Your task to perform on an android device: Open Google Maps Image 0: 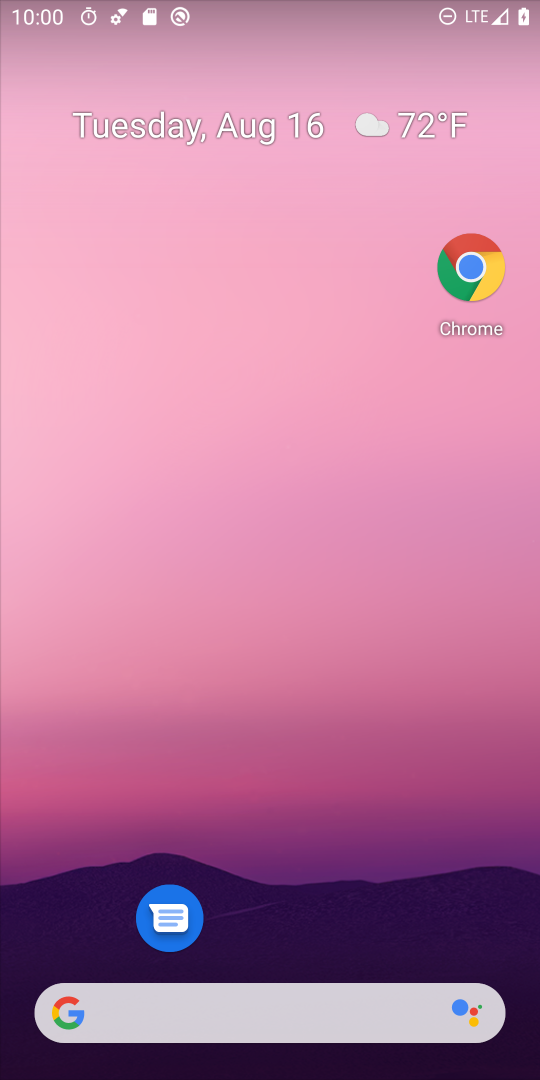
Step 0: drag from (299, 850) to (497, 525)
Your task to perform on an android device: Open Google Maps Image 1: 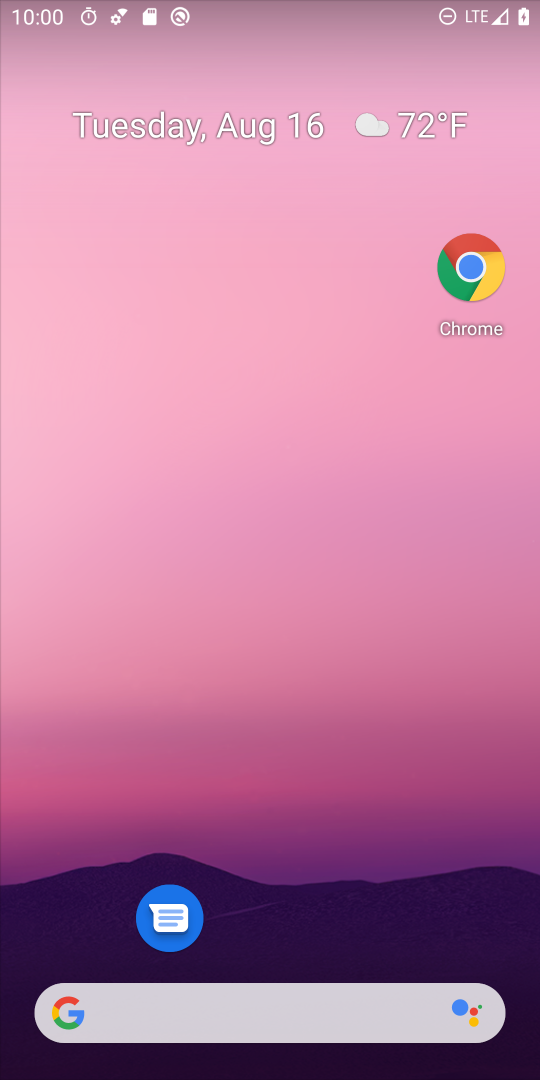
Step 1: drag from (273, 881) to (381, 16)
Your task to perform on an android device: Open Google Maps Image 2: 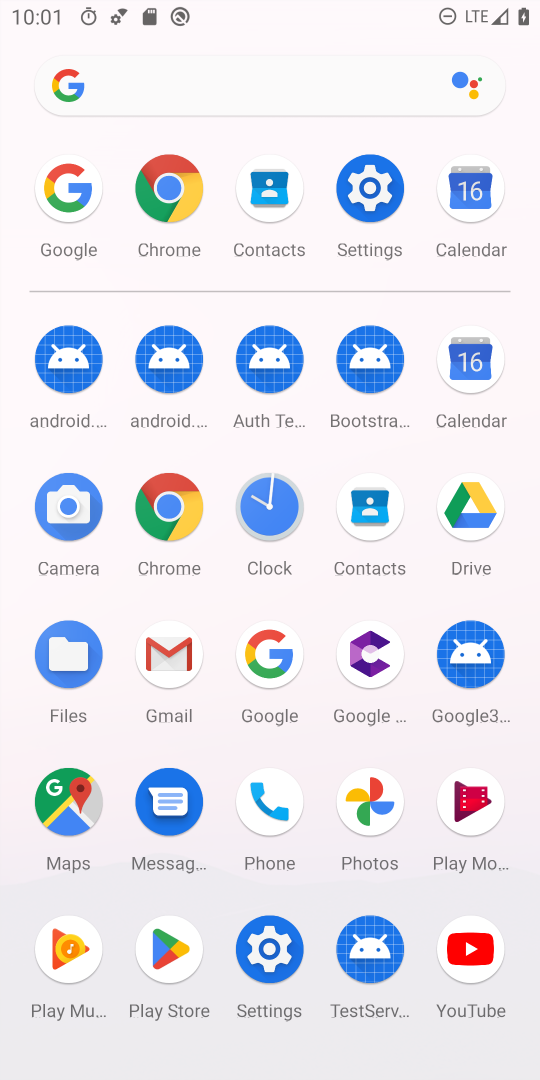
Step 2: click (69, 824)
Your task to perform on an android device: Open Google Maps Image 3: 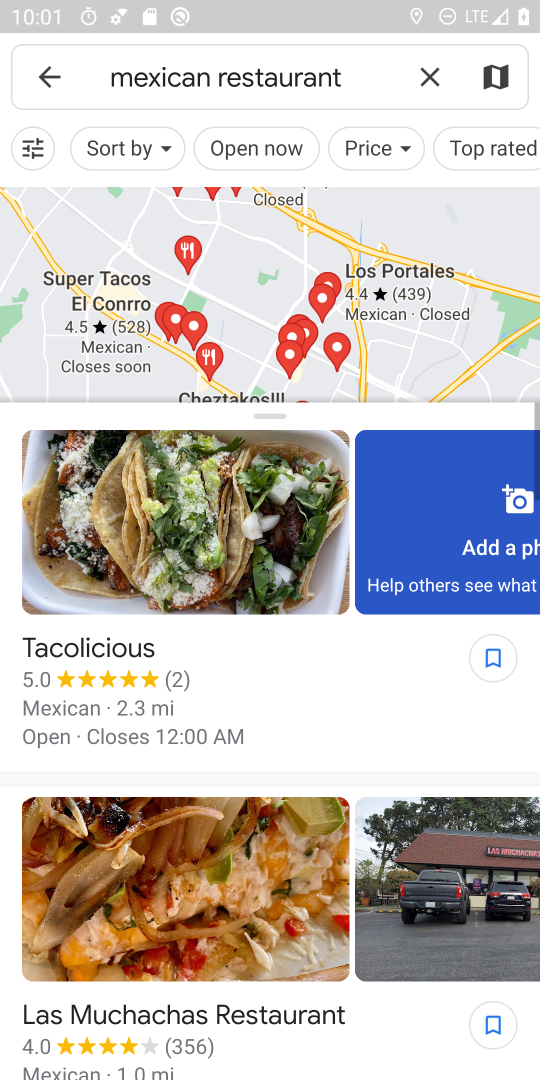
Step 3: task complete